Your task to perform on an android device: check data usage Image 0: 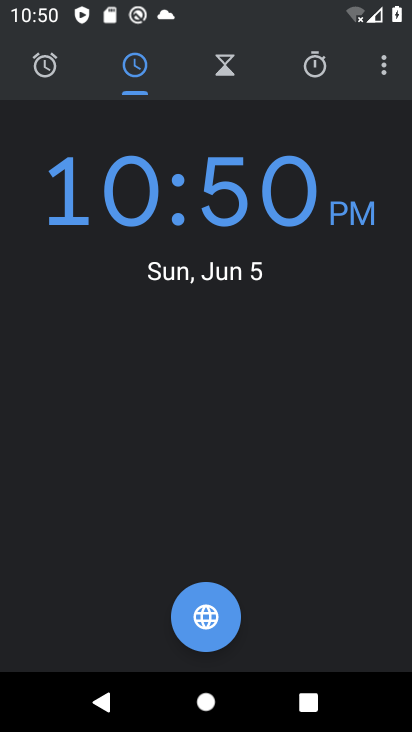
Step 0: press home button
Your task to perform on an android device: check data usage Image 1: 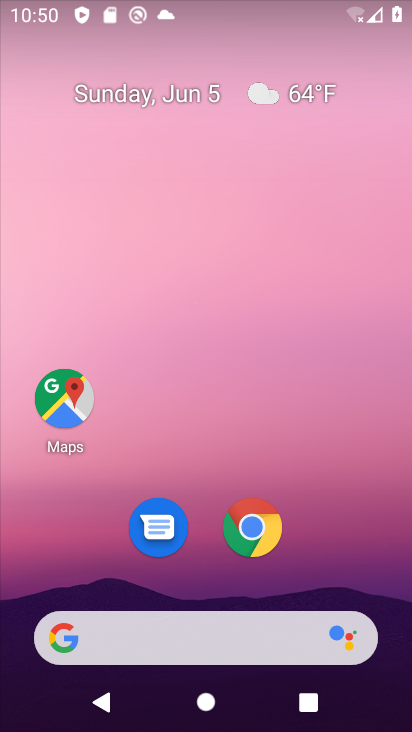
Step 1: drag from (310, 560) to (287, 48)
Your task to perform on an android device: check data usage Image 2: 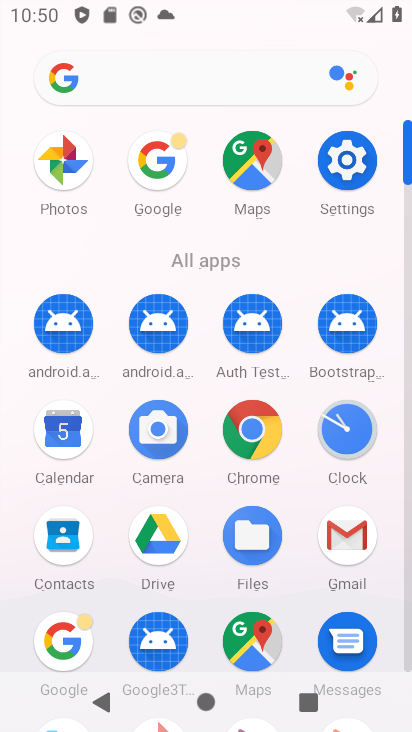
Step 2: click (345, 146)
Your task to perform on an android device: check data usage Image 3: 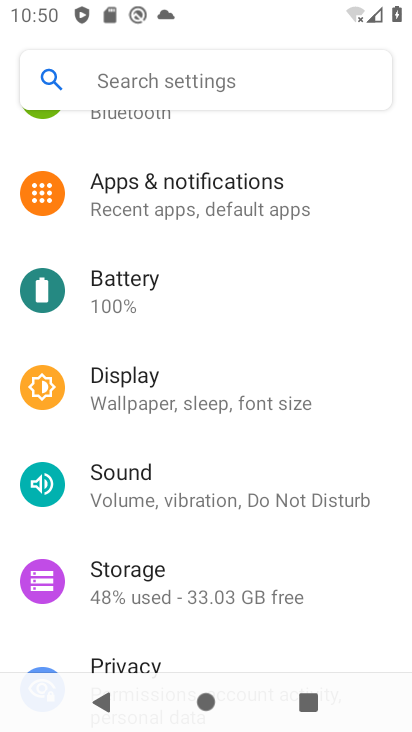
Step 3: drag from (269, 176) to (266, 583)
Your task to perform on an android device: check data usage Image 4: 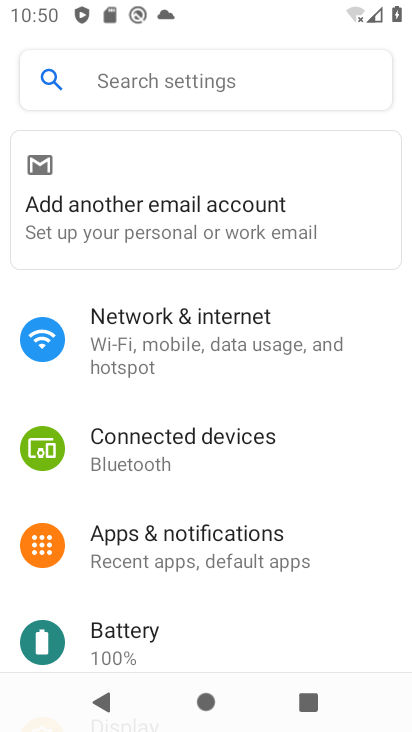
Step 4: click (245, 341)
Your task to perform on an android device: check data usage Image 5: 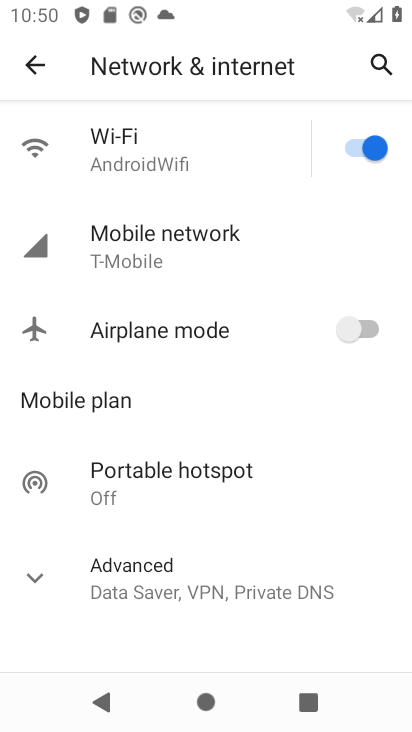
Step 5: click (165, 249)
Your task to perform on an android device: check data usage Image 6: 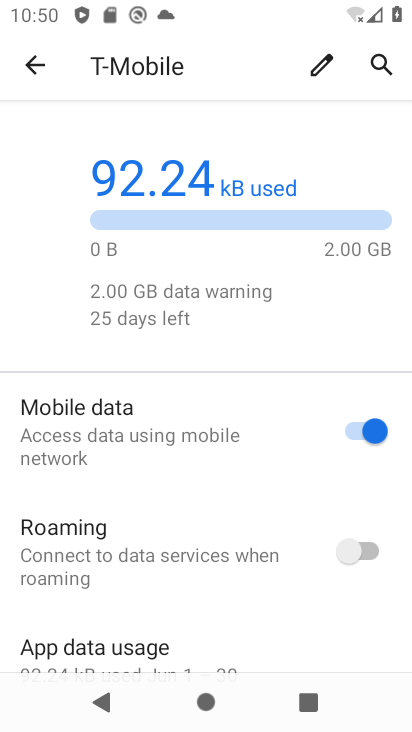
Step 6: click (182, 639)
Your task to perform on an android device: check data usage Image 7: 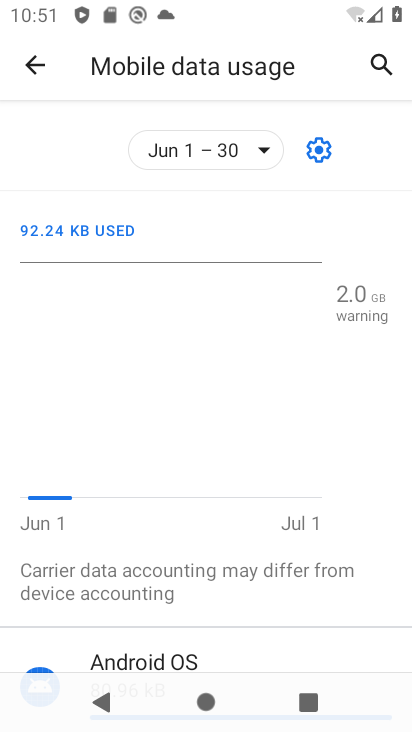
Step 7: task complete